Your task to perform on an android device: Open ESPN.com Image 0: 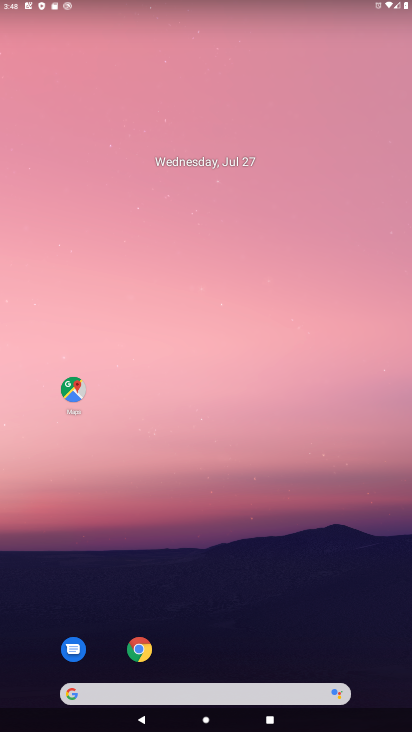
Step 0: click (142, 649)
Your task to perform on an android device: Open ESPN.com Image 1: 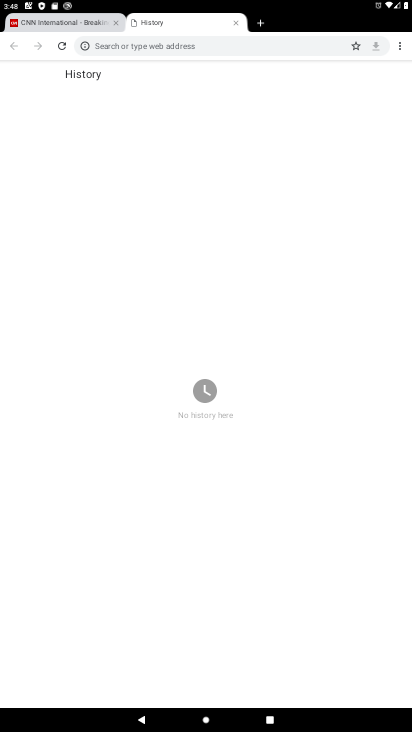
Step 1: click (131, 46)
Your task to perform on an android device: Open ESPN.com Image 2: 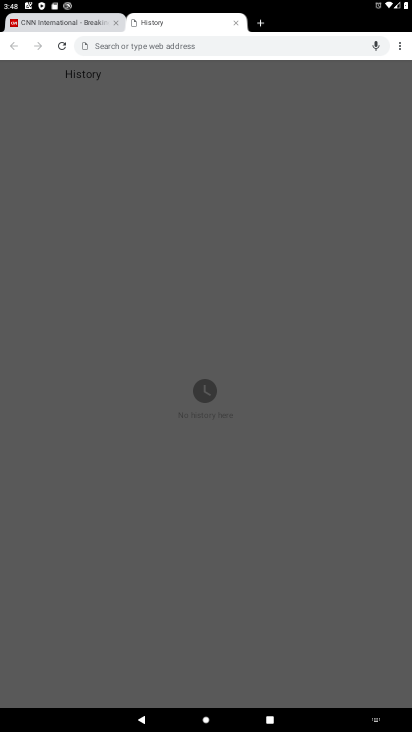
Step 2: type "espn.com"
Your task to perform on an android device: Open ESPN.com Image 3: 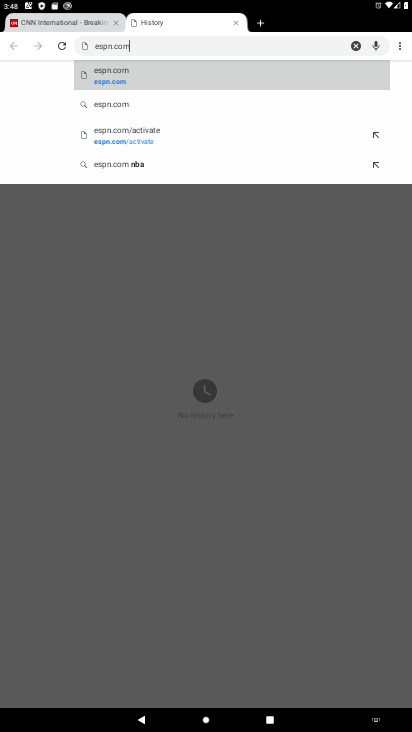
Step 3: click (107, 70)
Your task to perform on an android device: Open ESPN.com Image 4: 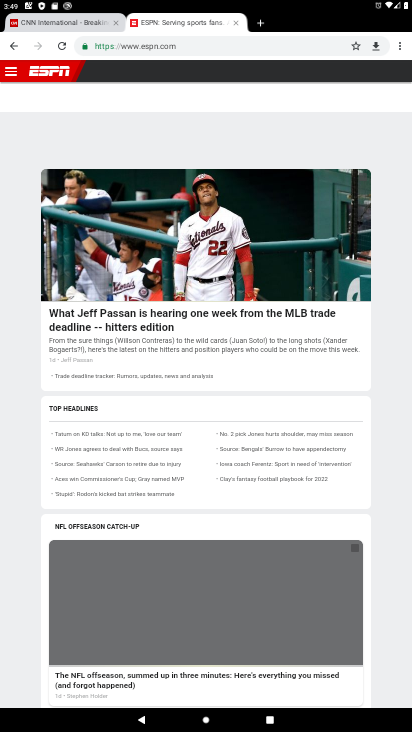
Step 4: task complete